Your task to perform on an android device: Open Youtube and go to "Your channel" Image 0: 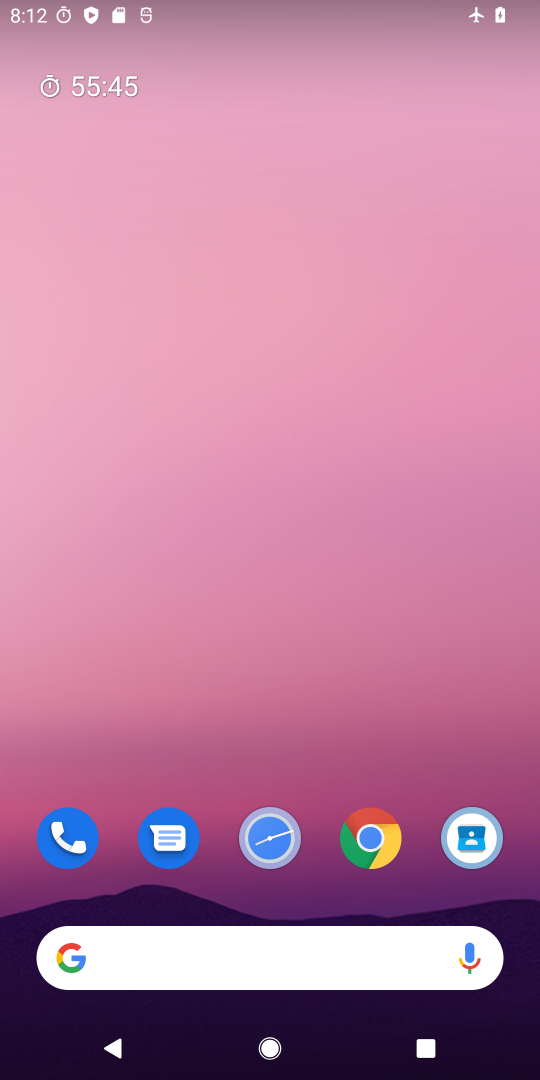
Step 0: drag from (266, 891) to (353, 32)
Your task to perform on an android device: Open Youtube and go to "Your channel" Image 1: 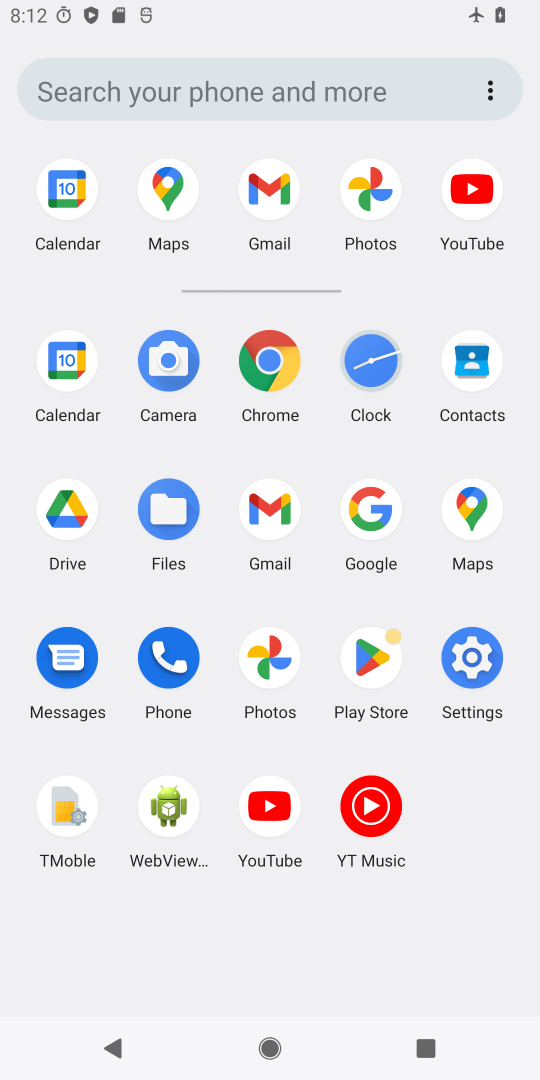
Step 1: click (486, 212)
Your task to perform on an android device: Open Youtube and go to "Your channel" Image 2: 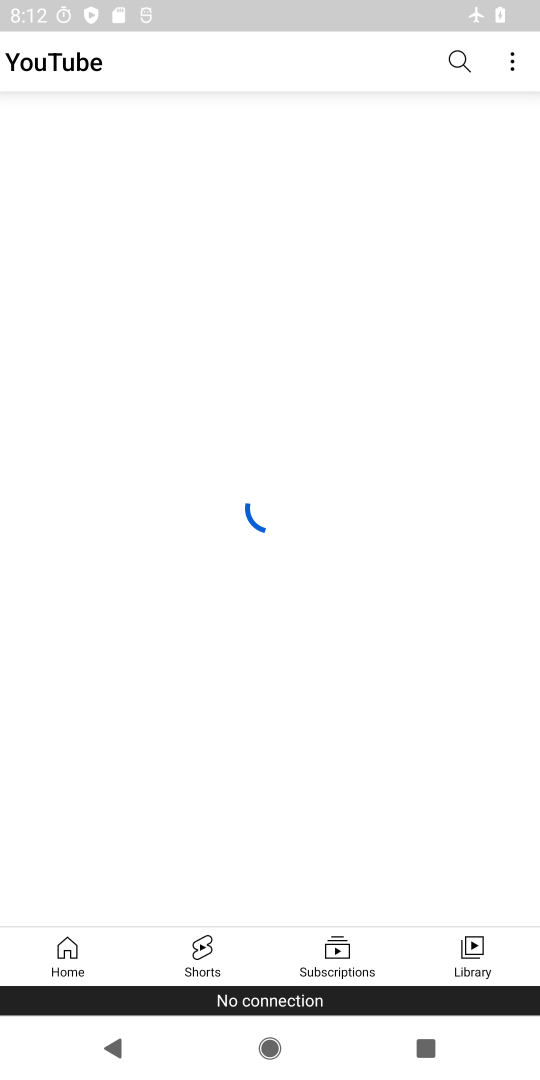
Step 2: drag from (470, 10) to (504, 1052)
Your task to perform on an android device: Open Youtube and go to "Your channel" Image 3: 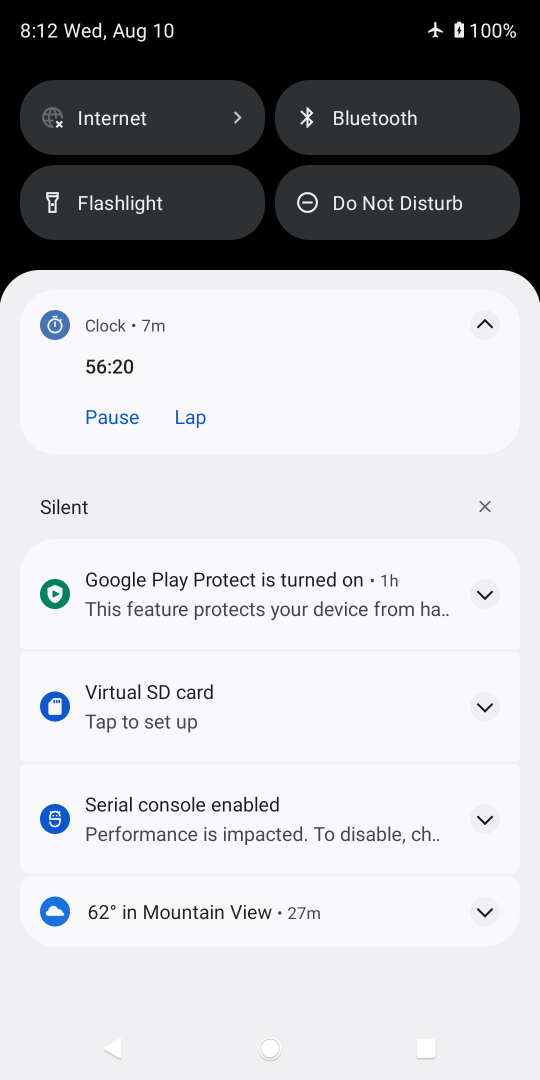
Step 3: drag from (271, 236) to (298, 657)
Your task to perform on an android device: Open Youtube and go to "Your channel" Image 4: 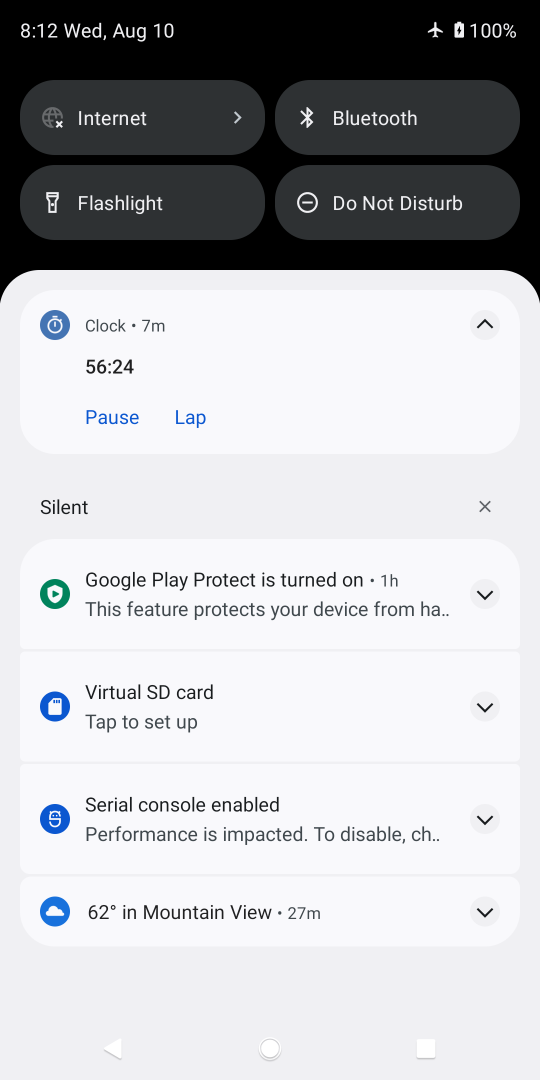
Step 4: drag from (273, 239) to (318, 1069)
Your task to perform on an android device: Open Youtube and go to "Your channel" Image 5: 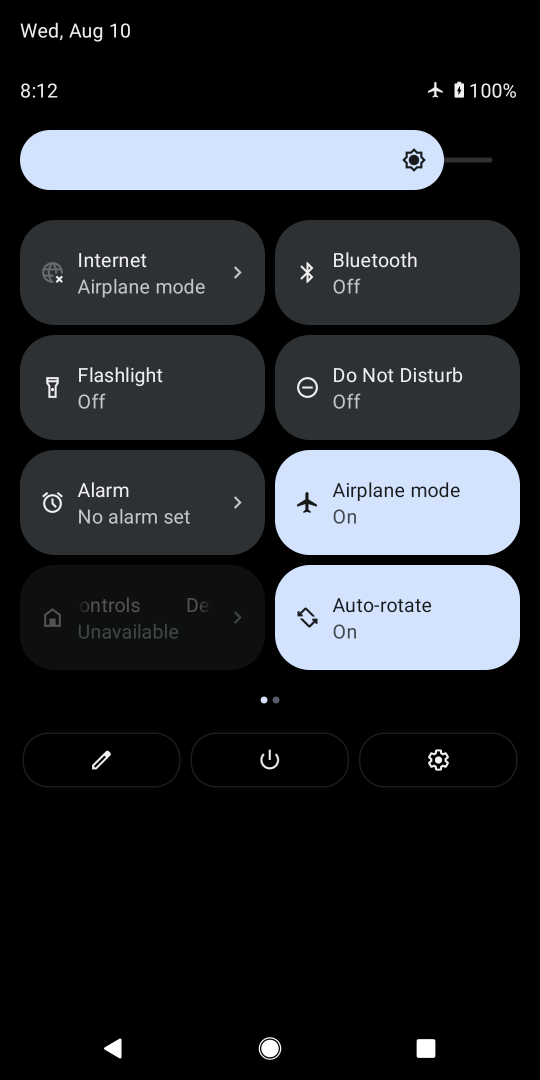
Step 5: click (406, 502)
Your task to perform on an android device: Open Youtube and go to "Your channel" Image 6: 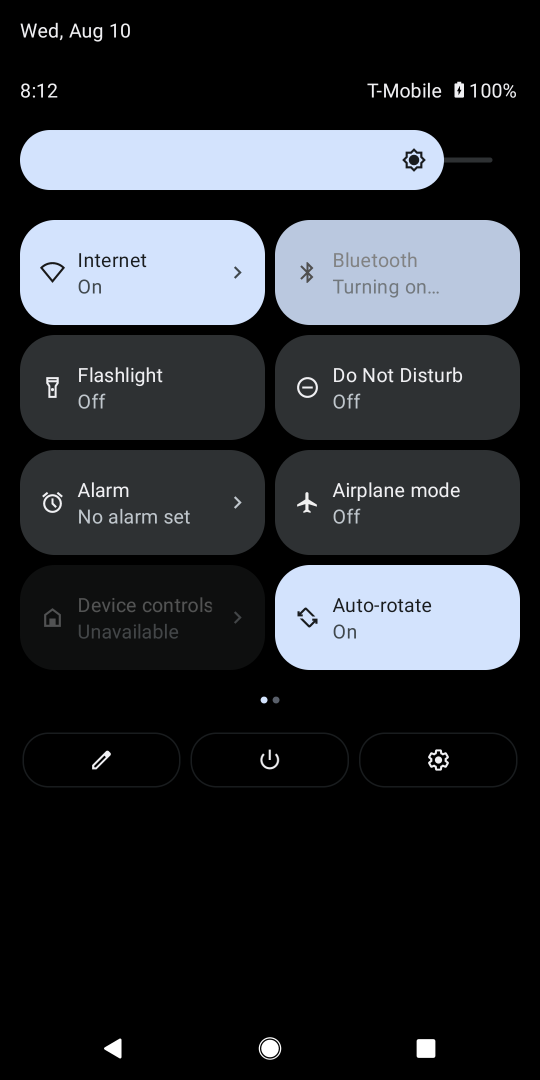
Step 6: task complete